Your task to perform on an android device: turn off notifications settings in the gmail app Image 0: 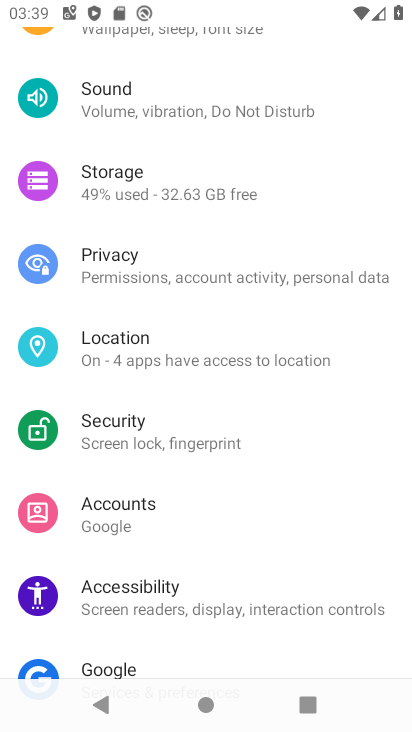
Step 0: press home button
Your task to perform on an android device: turn off notifications settings in the gmail app Image 1: 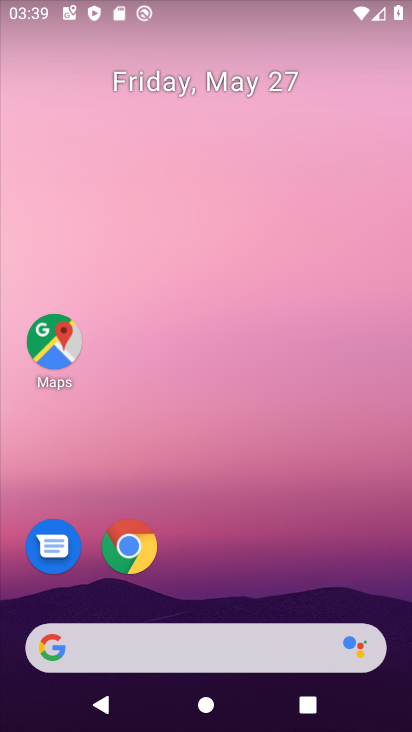
Step 1: drag from (388, 686) to (349, 293)
Your task to perform on an android device: turn off notifications settings in the gmail app Image 2: 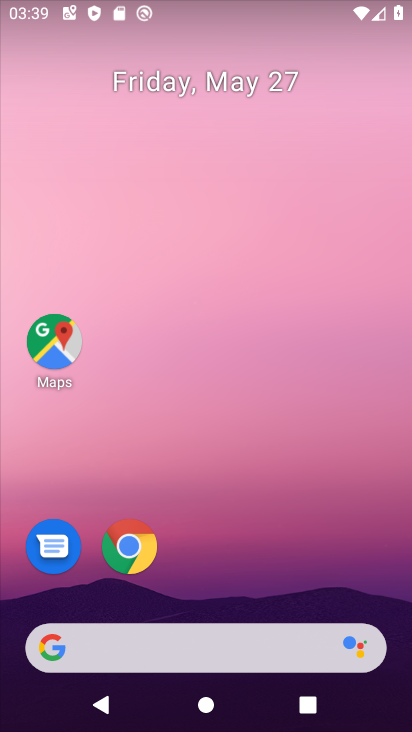
Step 2: drag from (397, 713) to (354, 147)
Your task to perform on an android device: turn off notifications settings in the gmail app Image 3: 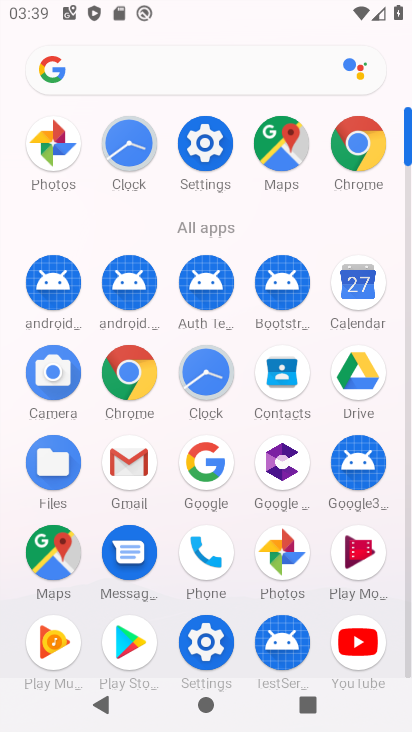
Step 3: click (133, 455)
Your task to perform on an android device: turn off notifications settings in the gmail app Image 4: 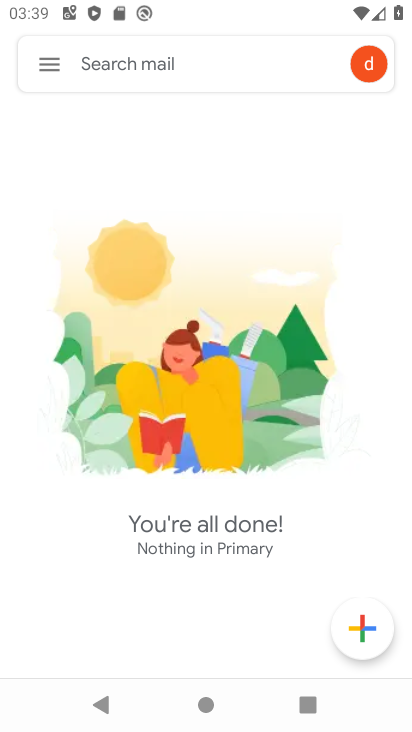
Step 4: click (53, 57)
Your task to perform on an android device: turn off notifications settings in the gmail app Image 5: 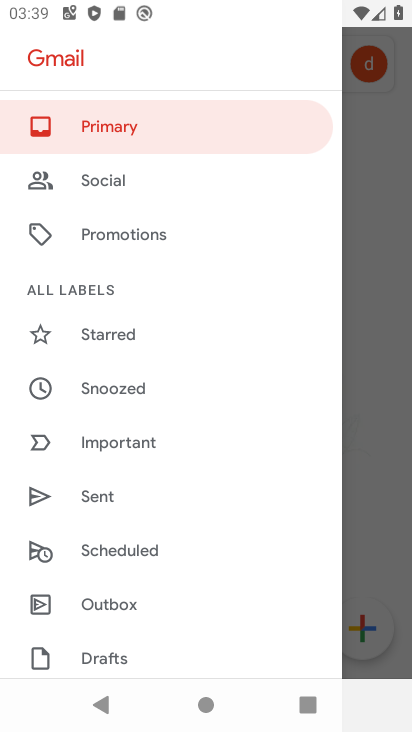
Step 5: drag from (178, 650) to (194, 209)
Your task to perform on an android device: turn off notifications settings in the gmail app Image 6: 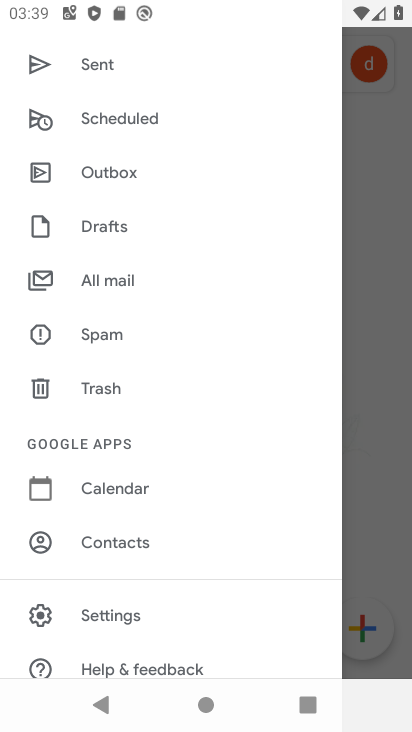
Step 6: click (96, 610)
Your task to perform on an android device: turn off notifications settings in the gmail app Image 7: 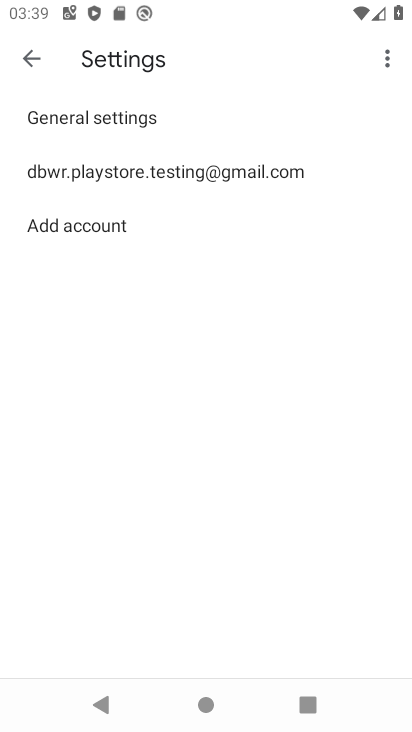
Step 7: click (69, 113)
Your task to perform on an android device: turn off notifications settings in the gmail app Image 8: 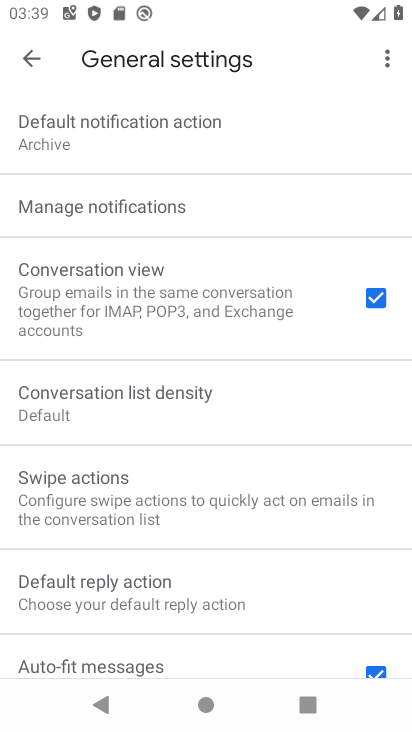
Step 8: click (60, 204)
Your task to perform on an android device: turn off notifications settings in the gmail app Image 9: 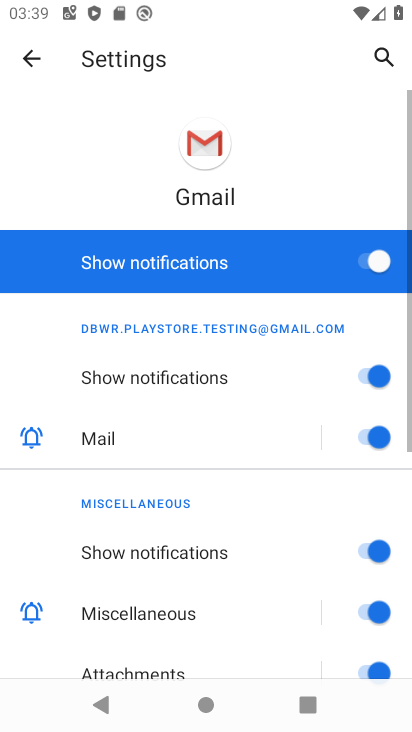
Step 9: click (372, 259)
Your task to perform on an android device: turn off notifications settings in the gmail app Image 10: 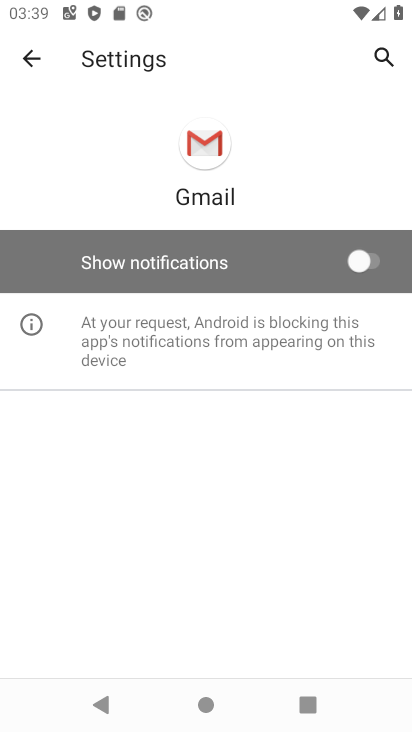
Step 10: task complete